Your task to perform on an android device: Set the phone to "Do not disturb". Image 0: 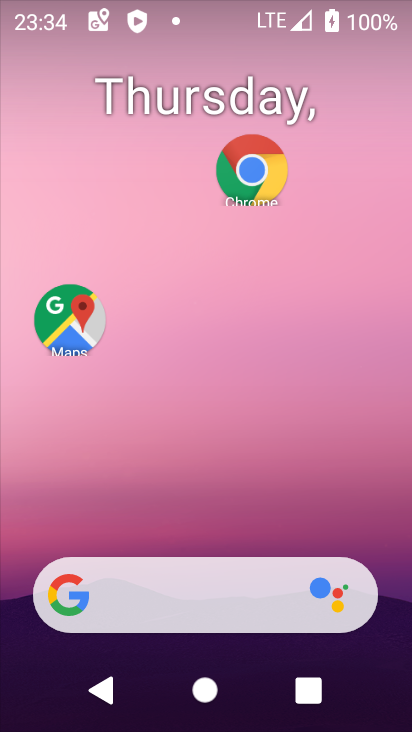
Step 0: drag from (167, 556) to (202, 291)
Your task to perform on an android device: Set the phone to "Do not disturb". Image 1: 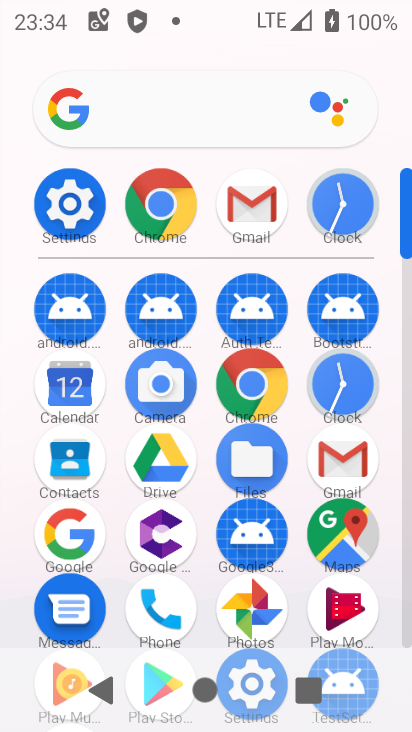
Step 1: click (62, 201)
Your task to perform on an android device: Set the phone to "Do not disturb". Image 2: 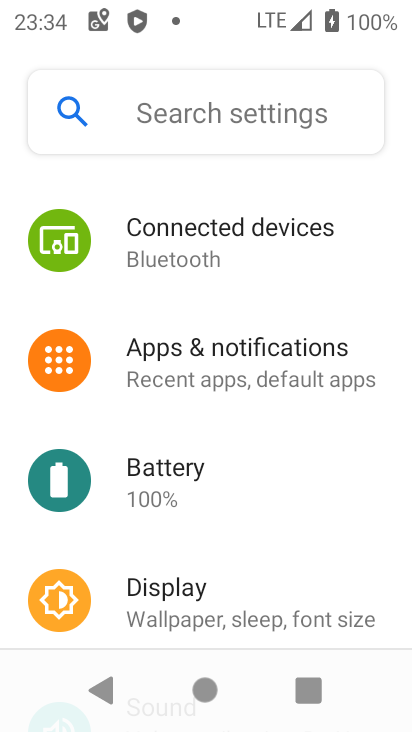
Step 2: drag from (176, 574) to (225, 233)
Your task to perform on an android device: Set the phone to "Do not disturb". Image 3: 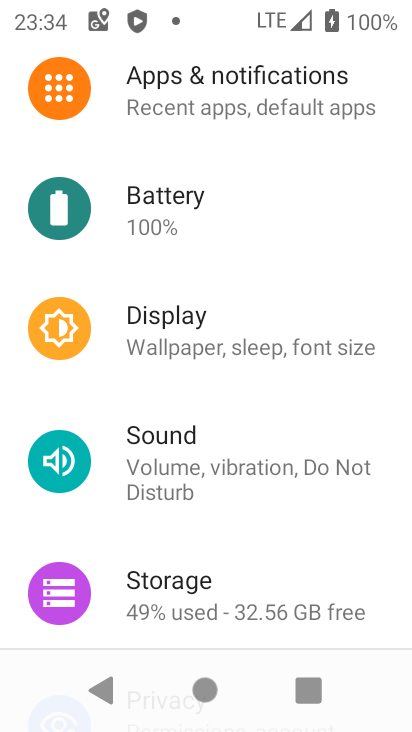
Step 3: drag from (187, 588) to (235, 254)
Your task to perform on an android device: Set the phone to "Do not disturb". Image 4: 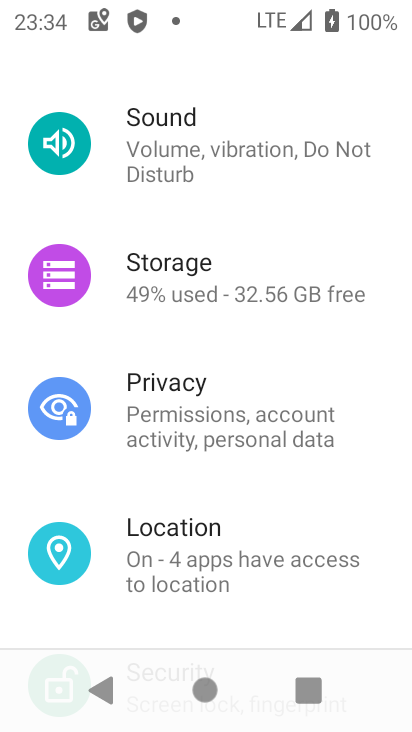
Step 4: click (234, 155)
Your task to perform on an android device: Set the phone to "Do not disturb". Image 5: 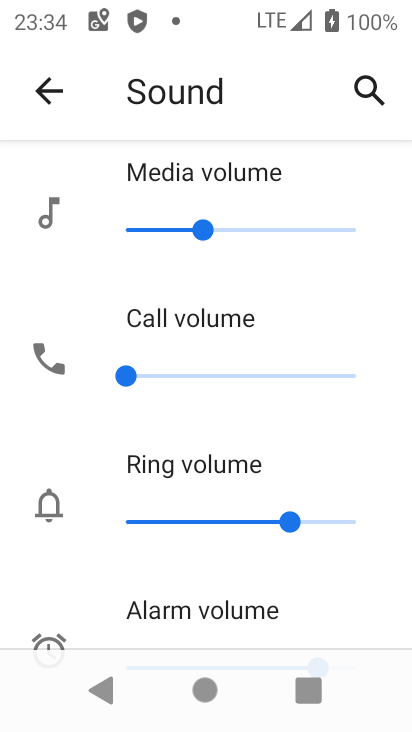
Step 5: drag from (269, 590) to (271, 304)
Your task to perform on an android device: Set the phone to "Do not disturb". Image 6: 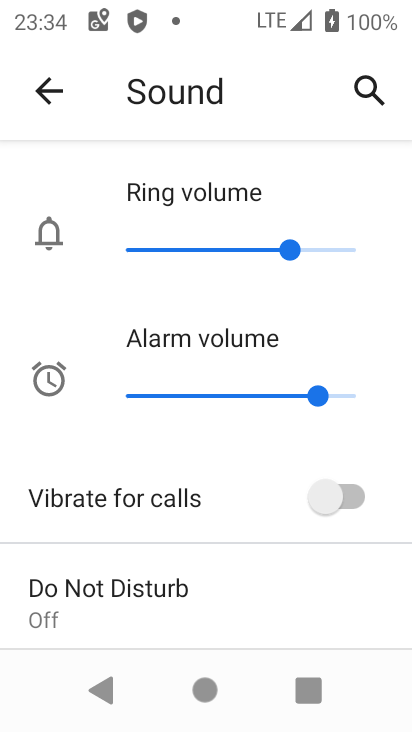
Step 6: click (97, 594)
Your task to perform on an android device: Set the phone to "Do not disturb". Image 7: 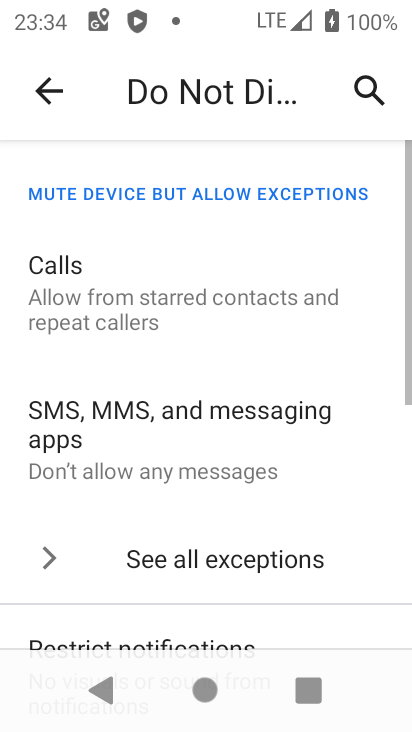
Step 7: drag from (176, 626) to (237, 281)
Your task to perform on an android device: Set the phone to "Do not disturb". Image 8: 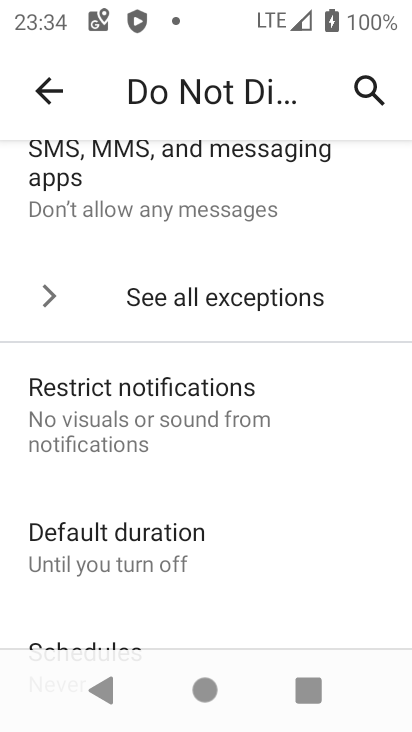
Step 8: drag from (110, 595) to (182, 283)
Your task to perform on an android device: Set the phone to "Do not disturb". Image 9: 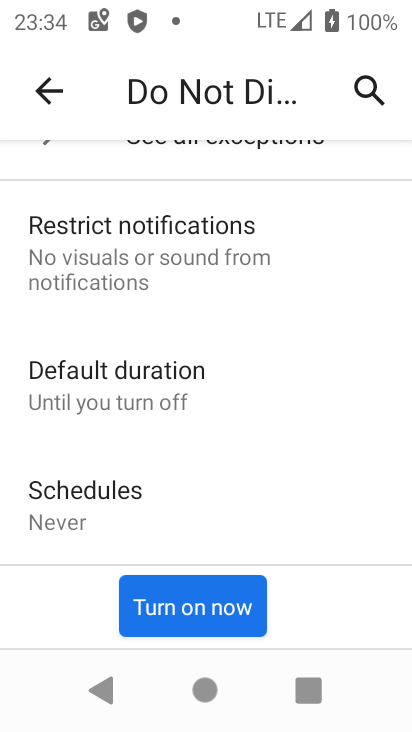
Step 9: click (166, 620)
Your task to perform on an android device: Set the phone to "Do not disturb". Image 10: 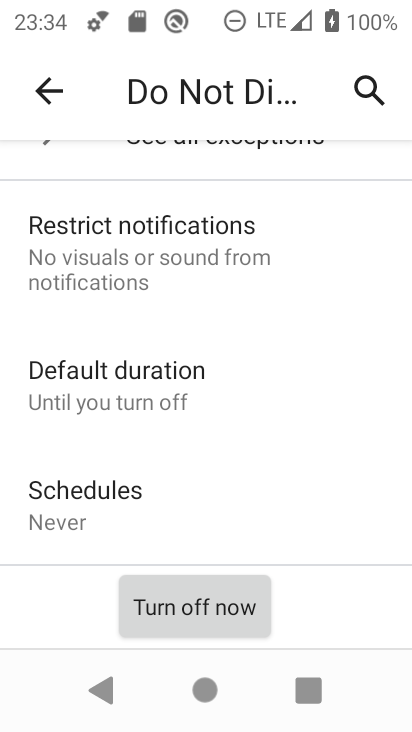
Step 10: task complete